Your task to perform on an android device: Open location settings Image 0: 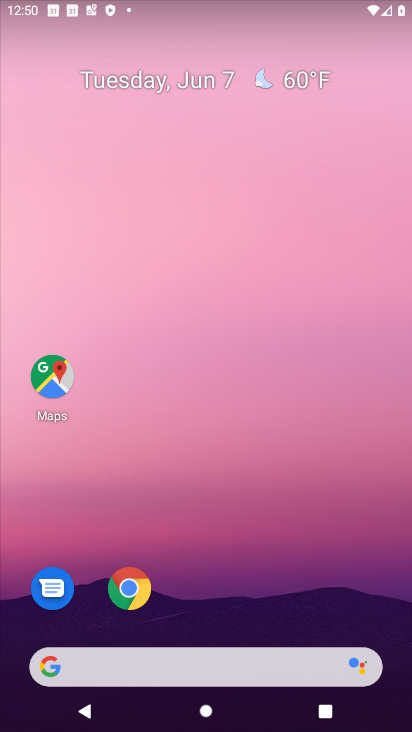
Step 0: drag from (239, 725) to (173, 34)
Your task to perform on an android device: Open location settings Image 1: 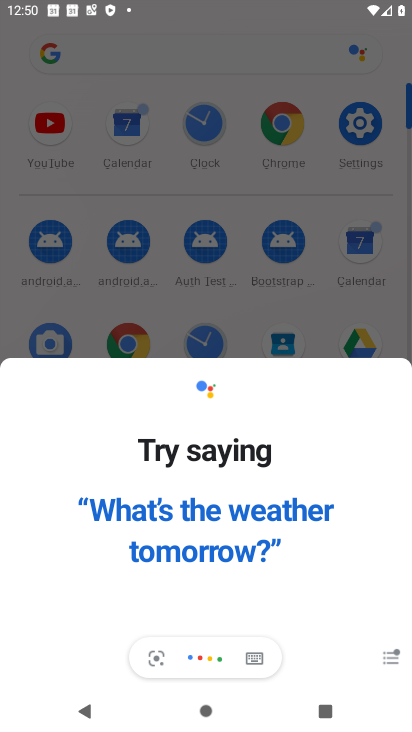
Step 1: click (377, 102)
Your task to perform on an android device: Open location settings Image 2: 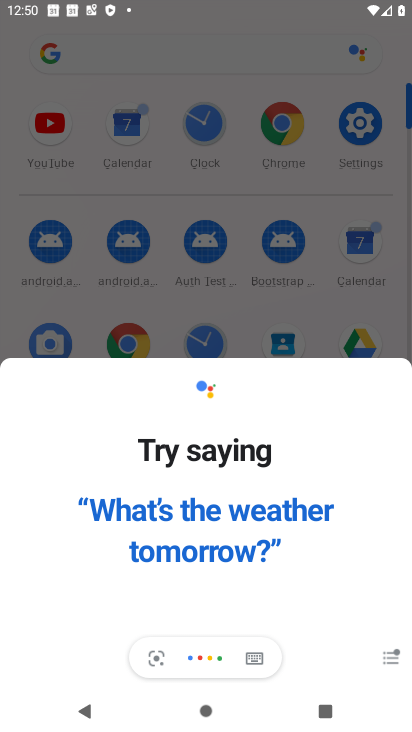
Step 2: click (377, 102)
Your task to perform on an android device: Open location settings Image 3: 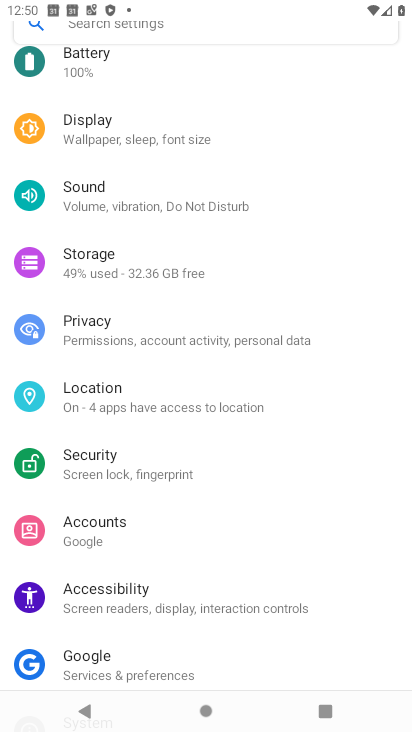
Step 3: click (107, 380)
Your task to perform on an android device: Open location settings Image 4: 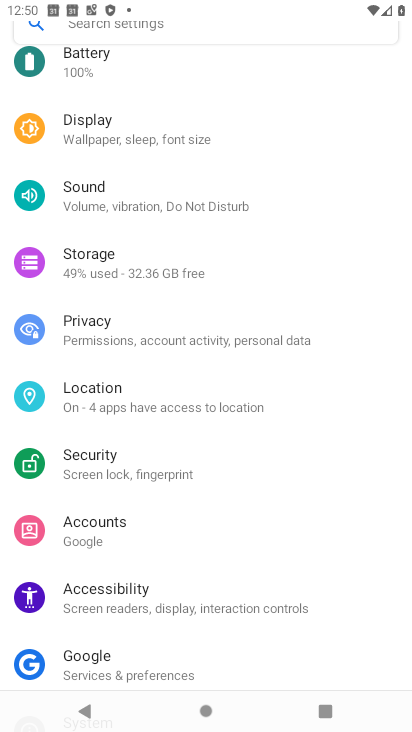
Step 4: click (107, 380)
Your task to perform on an android device: Open location settings Image 5: 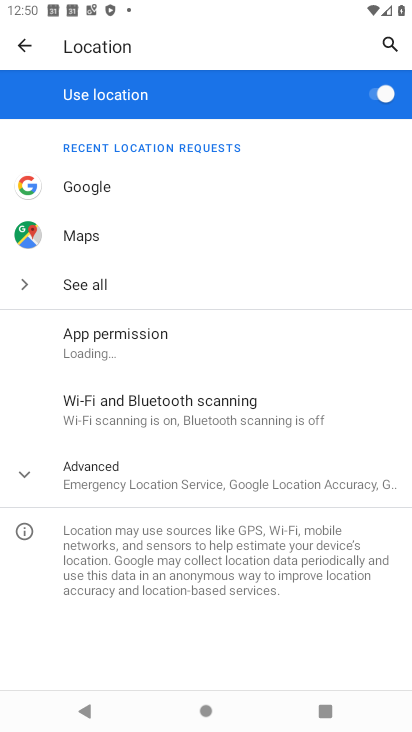
Step 5: task complete